Your task to perform on an android device: Open the calendar and show me this week's events? Image 0: 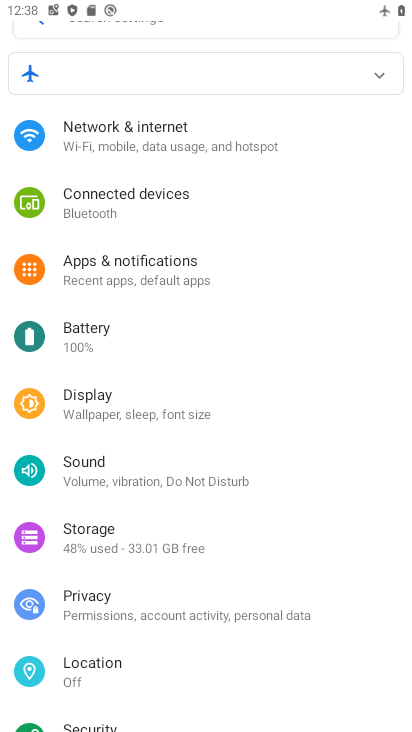
Step 0: press home button
Your task to perform on an android device: Open the calendar and show me this week's events? Image 1: 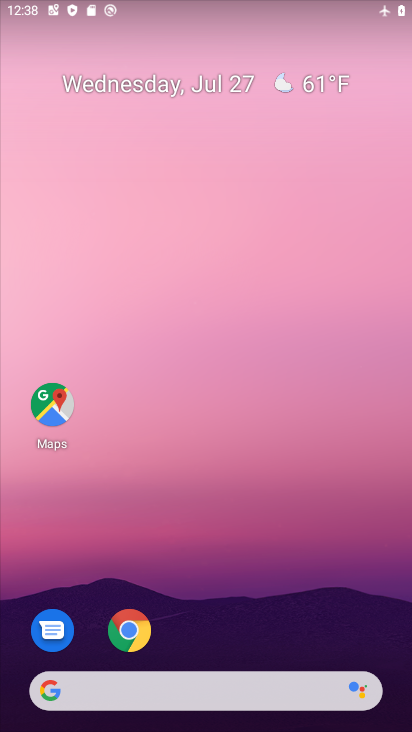
Step 1: drag from (223, 685) to (253, 220)
Your task to perform on an android device: Open the calendar and show me this week's events? Image 2: 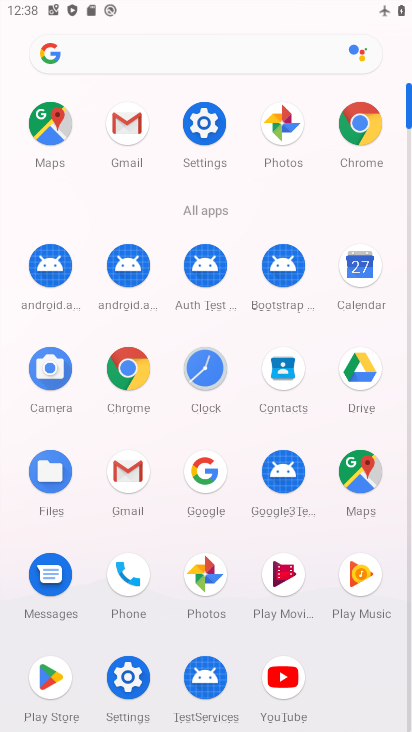
Step 2: click (349, 273)
Your task to perform on an android device: Open the calendar and show me this week's events? Image 3: 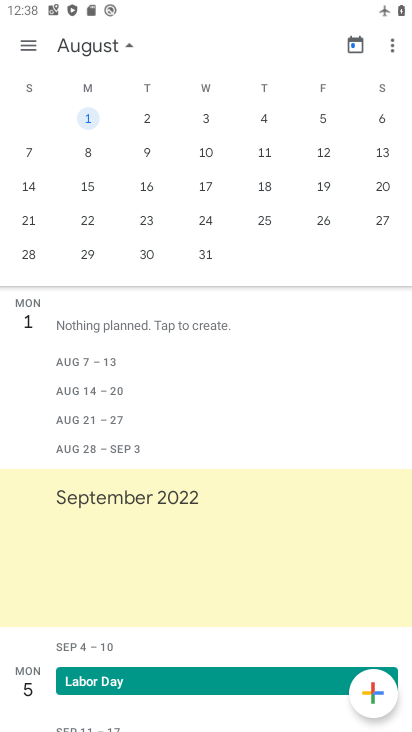
Step 3: drag from (1, 212) to (362, 190)
Your task to perform on an android device: Open the calendar and show me this week's events? Image 4: 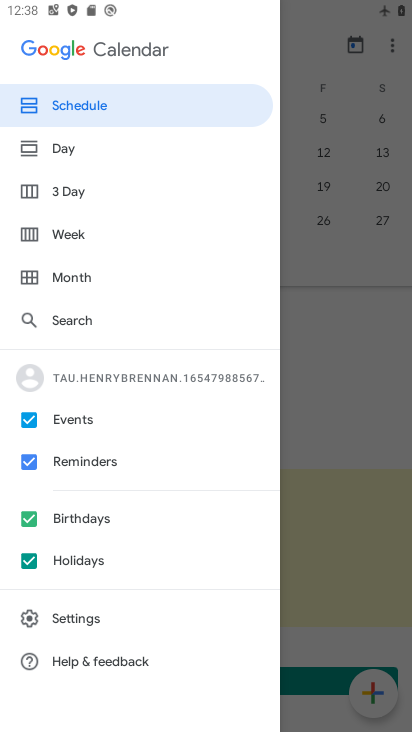
Step 4: click (324, 272)
Your task to perform on an android device: Open the calendar and show me this week's events? Image 5: 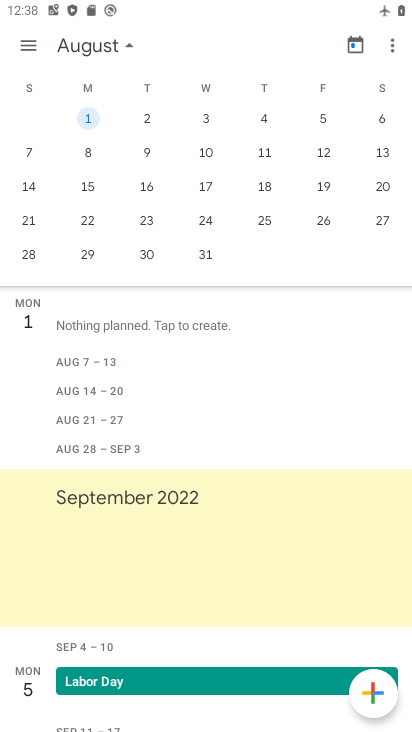
Step 5: drag from (38, 234) to (409, 236)
Your task to perform on an android device: Open the calendar and show me this week's events? Image 6: 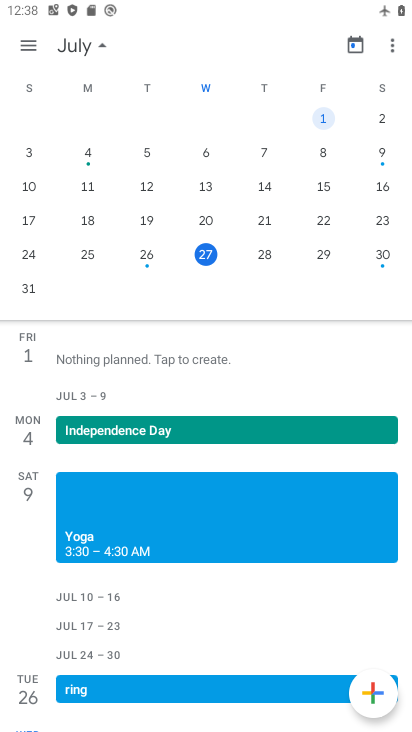
Step 6: click (209, 249)
Your task to perform on an android device: Open the calendar and show me this week's events? Image 7: 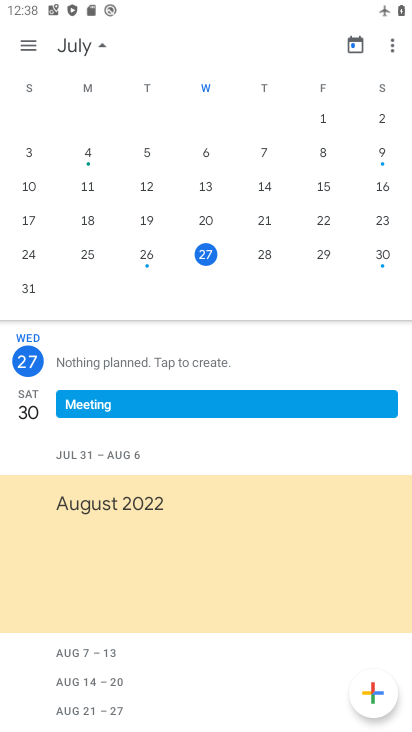
Step 7: click (26, 43)
Your task to perform on an android device: Open the calendar and show me this week's events? Image 8: 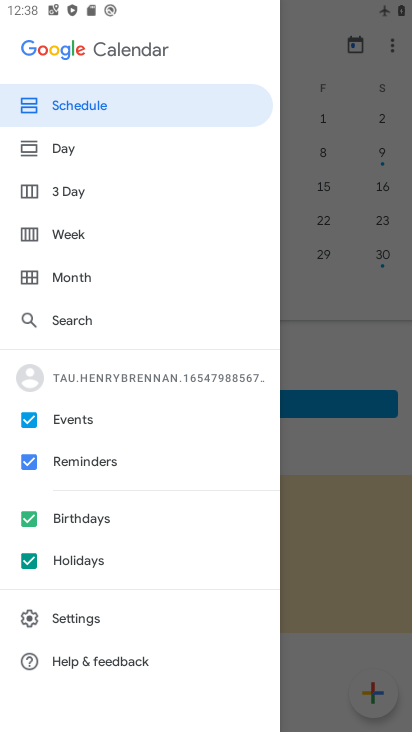
Step 8: click (60, 237)
Your task to perform on an android device: Open the calendar and show me this week's events? Image 9: 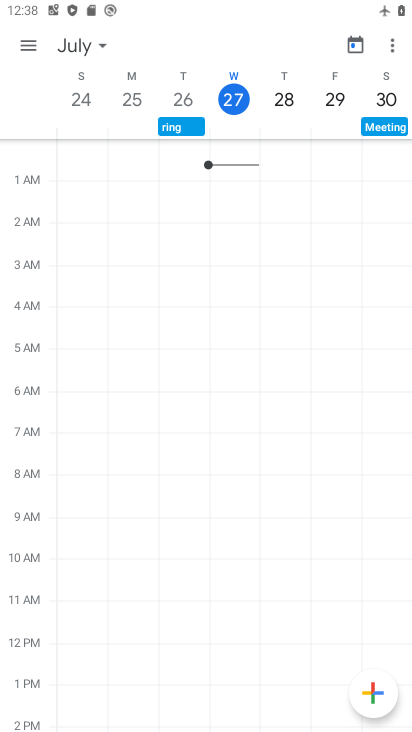
Step 9: task complete